Your task to perform on an android device: turn on data saver in the chrome app Image 0: 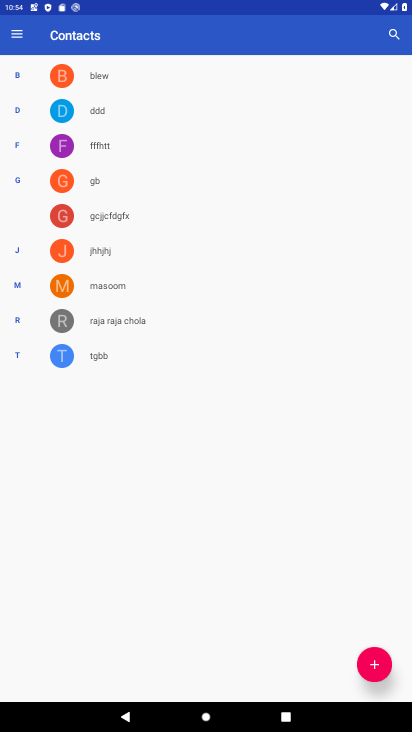
Step 0: press home button
Your task to perform on an android device: turn on data saver in the chrome app Image 1: 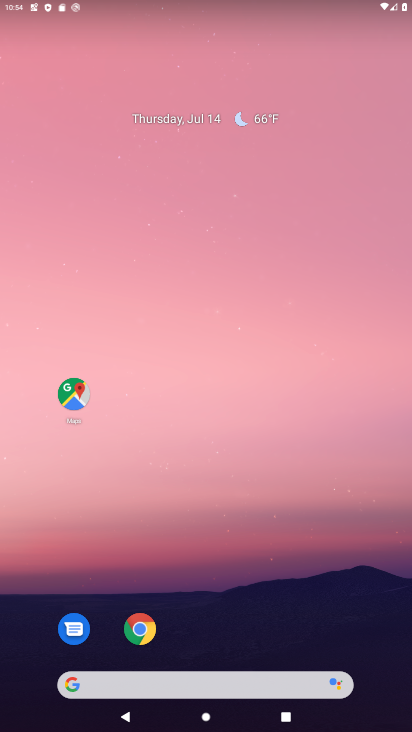
Step 1: click (135, 638)
Your task to perform on an android device: turn on data saver in the chrome app Image 2: 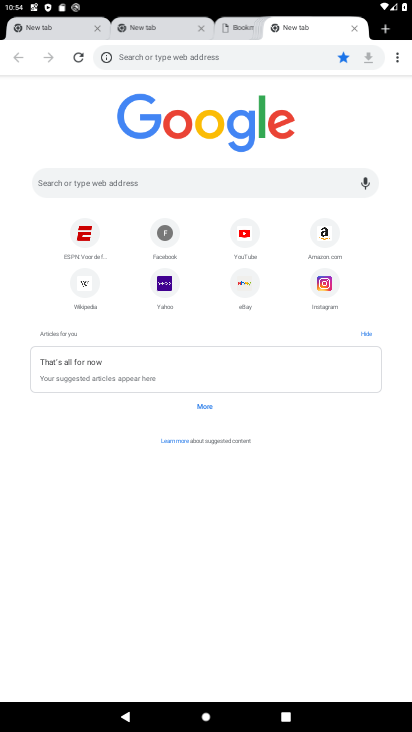
Step 2: drag from (395, 61) to (291, 267)
Your task to perform on an android device: turn on data saver in the chrome app Image 3: 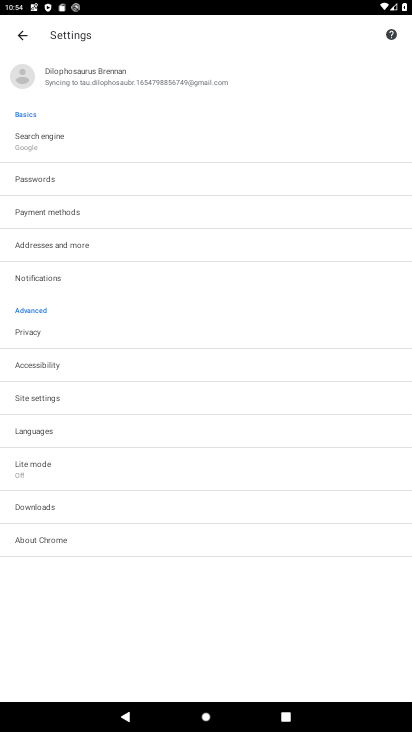
Step 3: click (34, 475)
Your task to perform on an android device: turn on data saver in the chrome app Image 4: 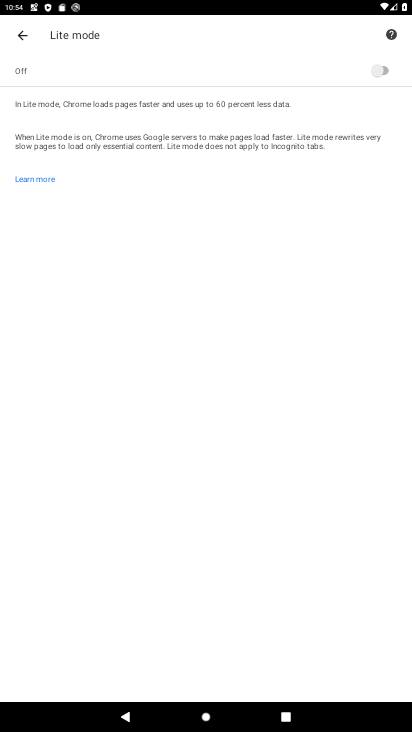
Step 4: click (383, 63)
Your task to perform on an android device: turn on data saver in the chrome app Image 5: 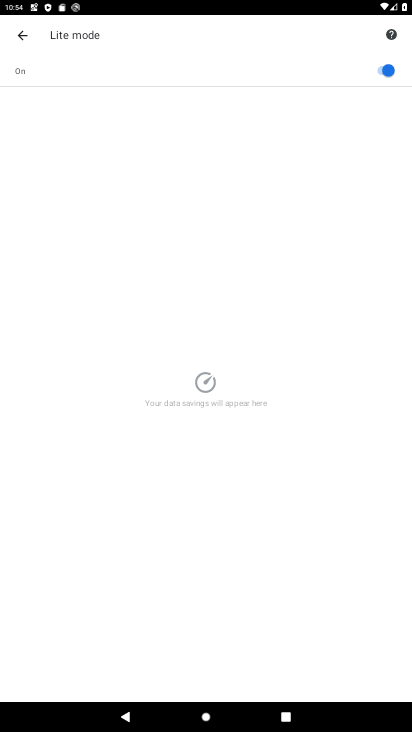
Step 5: task complete